Your task to perform on an android device: open app "WhatsApp Messenger" (install if not already installed) and go to login screen Image 0: 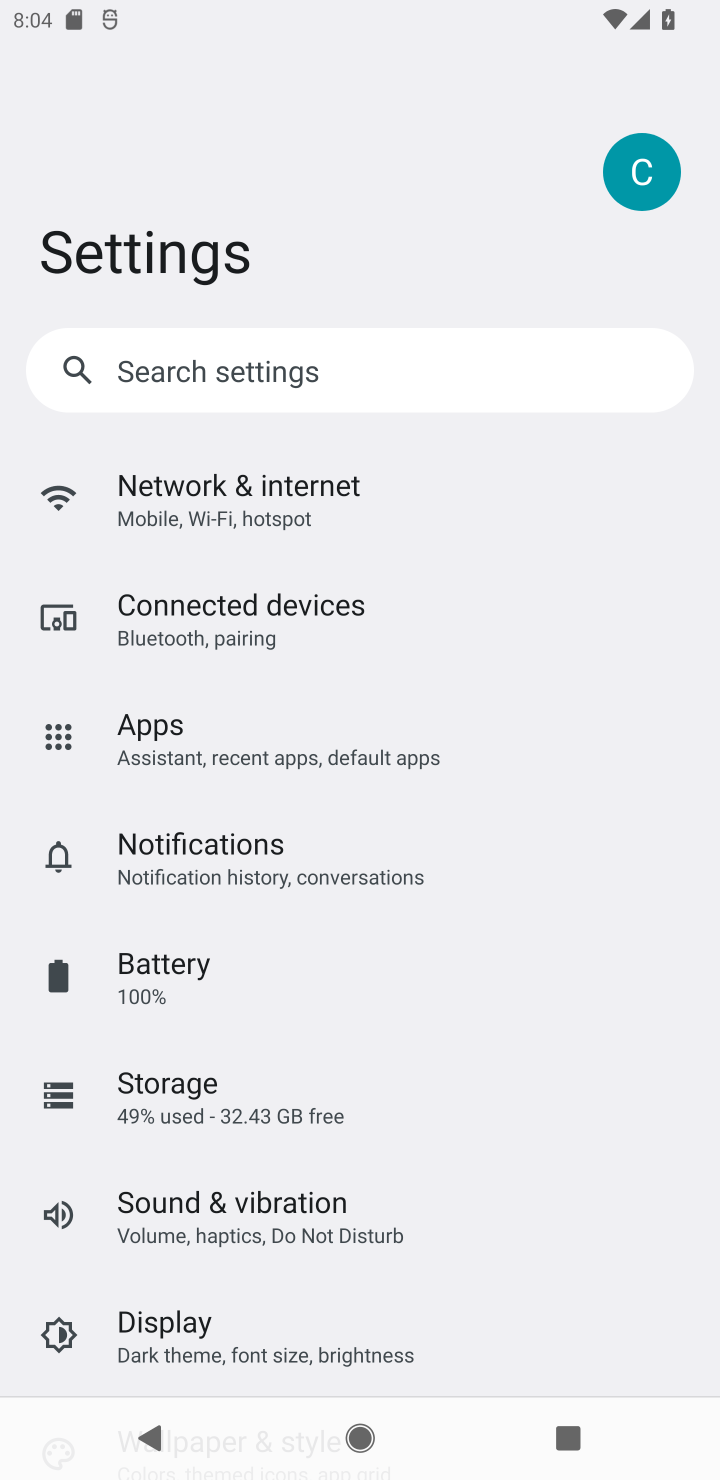
Step 0: press home button
Your task to perform on an android device: open app "WhatsApp Messenger" (install if not already installed) and go to login screen Image 1: 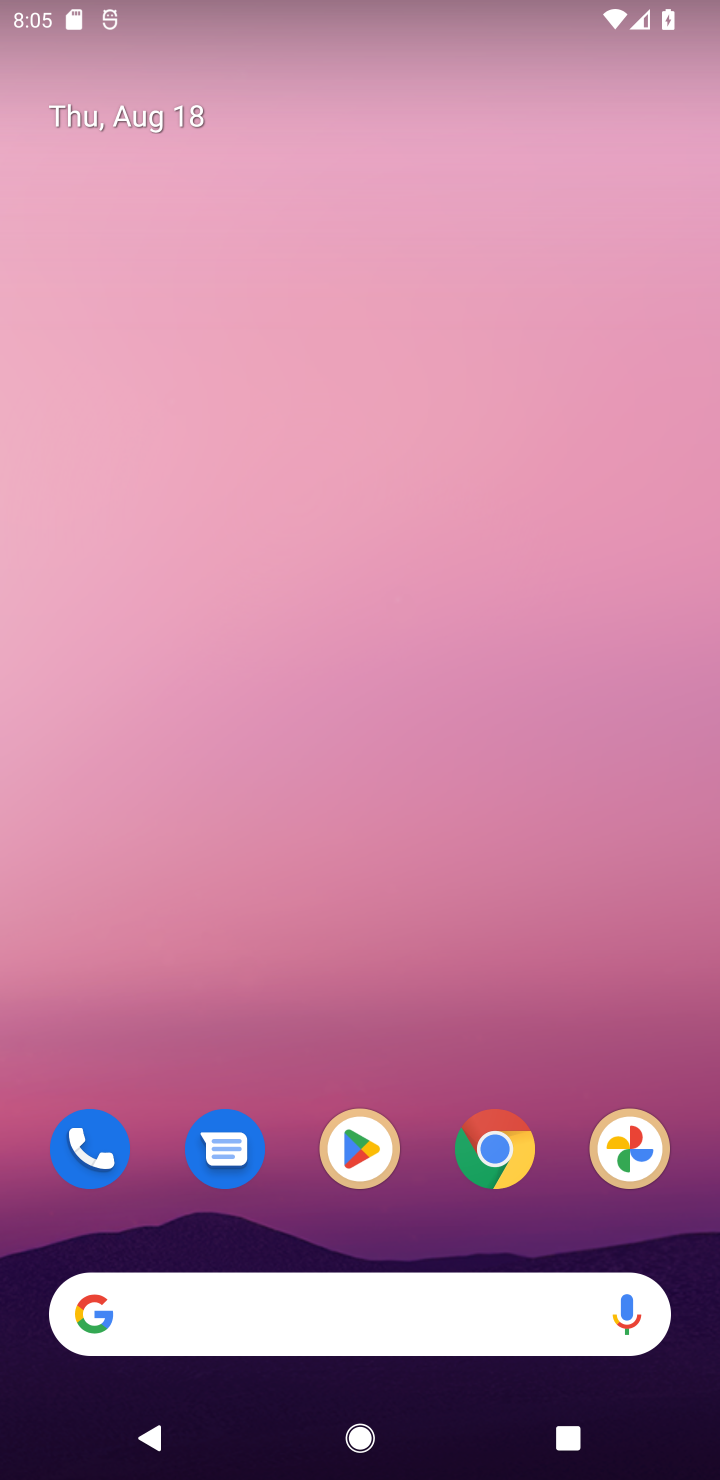
Step 1: drag from (555, 1234) to (288, 49)
Your task to perform on an android device: open app "WhatsApp Messenger" (install if not already installed) and go to login screen Image 2: 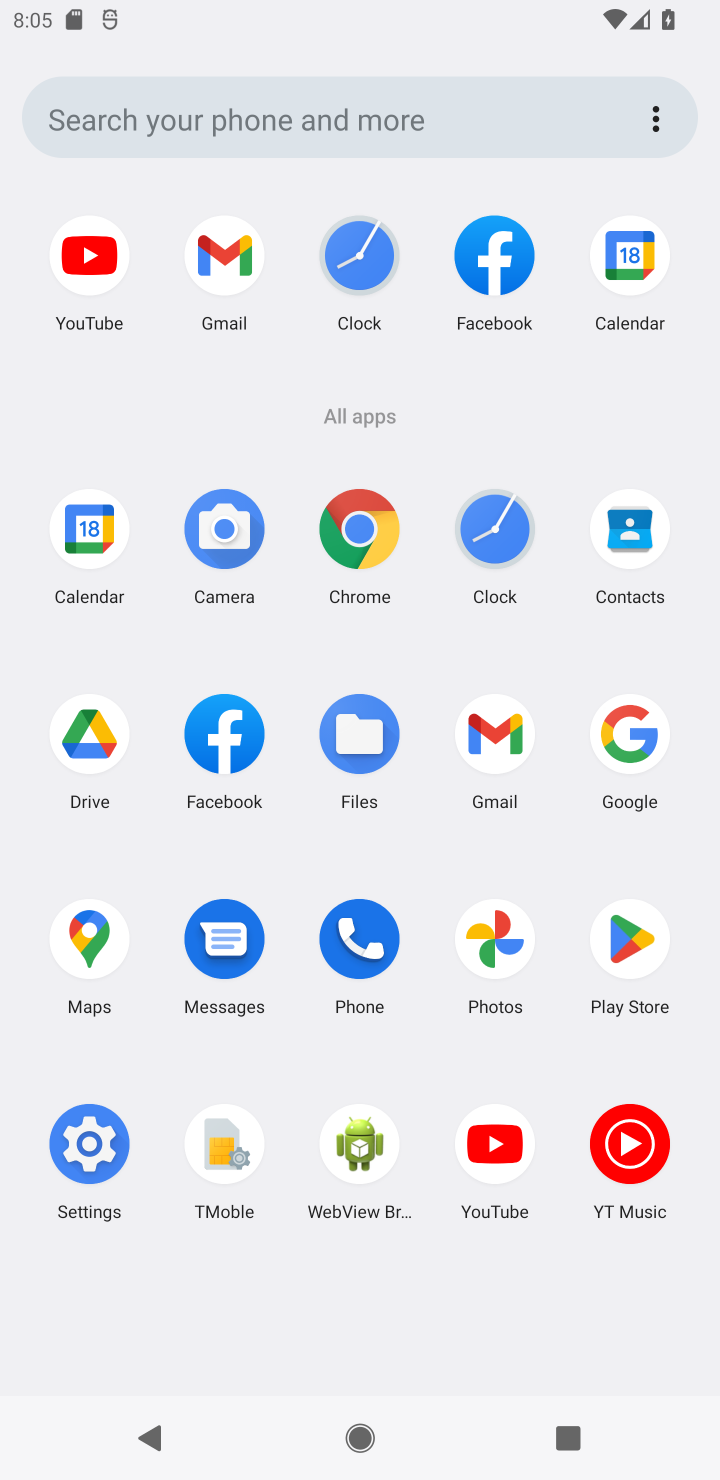
Step 2: click (618, 972)
Your task to perform on an android device: open app "WhatsApp Messenger" (install if not already installed) and go to login screen Image 3: 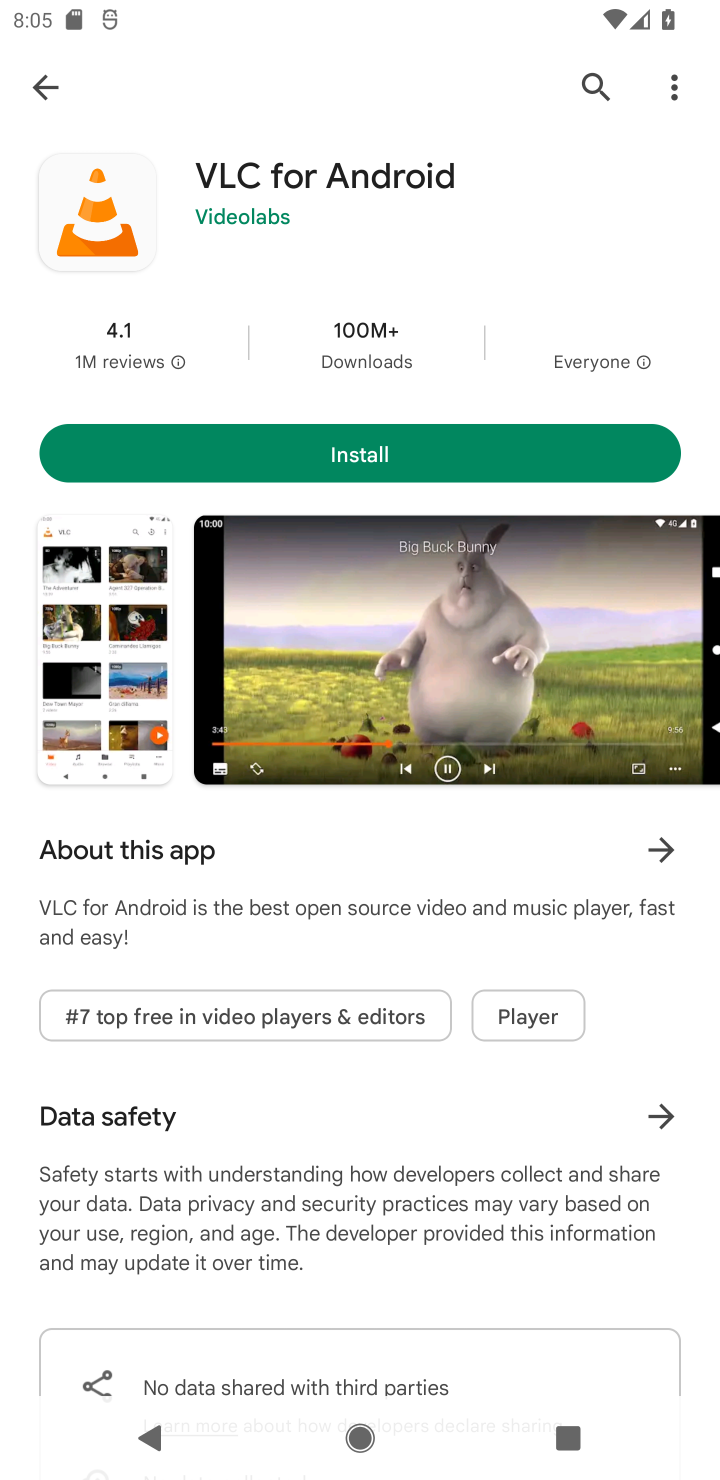
Step 3: press back button
Your task to perform on an android device: open app "WhatsApp Messenger" (install if not already installed) and go to login screen Image 4: 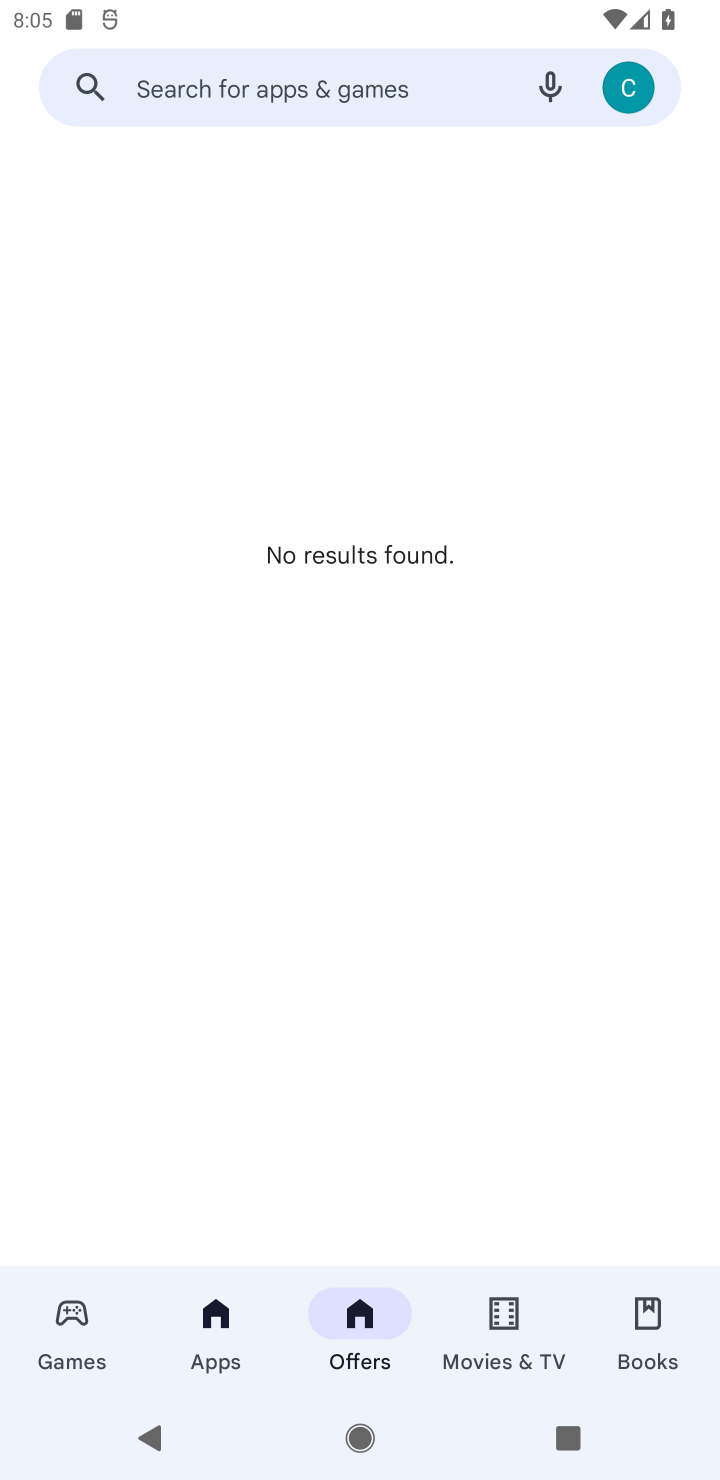
Step 4: click (212, 74)
Your task to perform on an android device: open app "WhatsApp Messenger" (install if not already installed) and go to login screen Image 5: 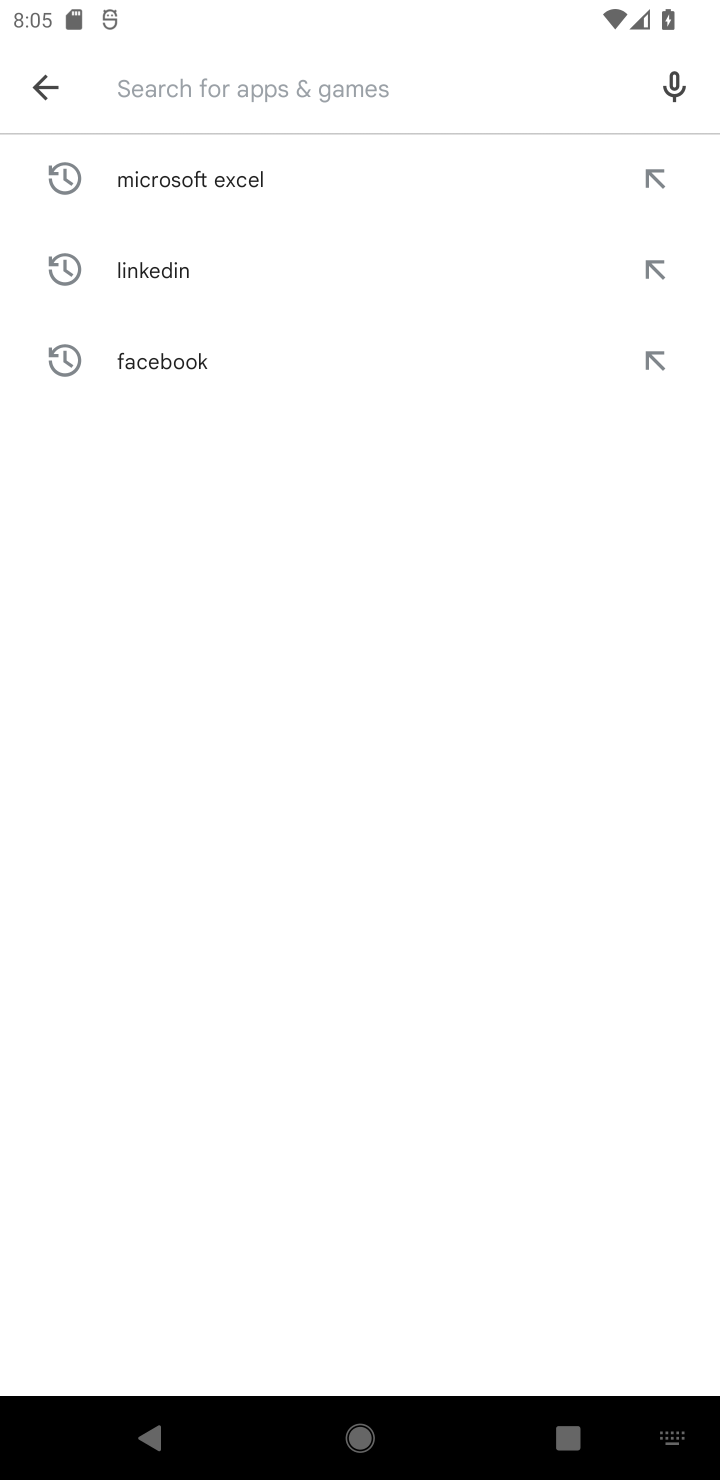
Step 5: type "WhatsApp Messenger"
Your task to perform on an android device: open app "WhatsApp Messenger" (install if not already installed) and go to login screen Image 6: 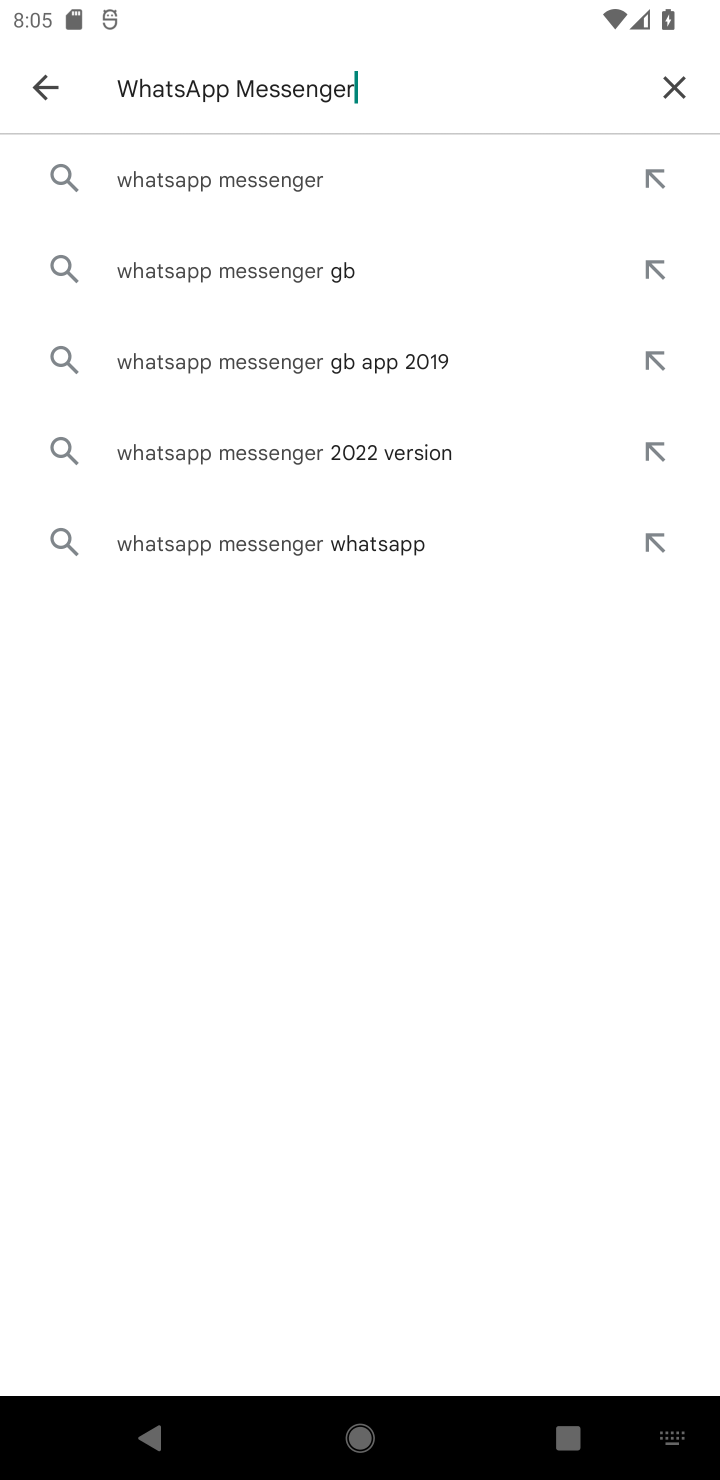
Step 6: click (215, 194)
Your task to perform on an android device: open app "WhatsApp Messenger" (install if not already installed) and go to login screen Image 7: 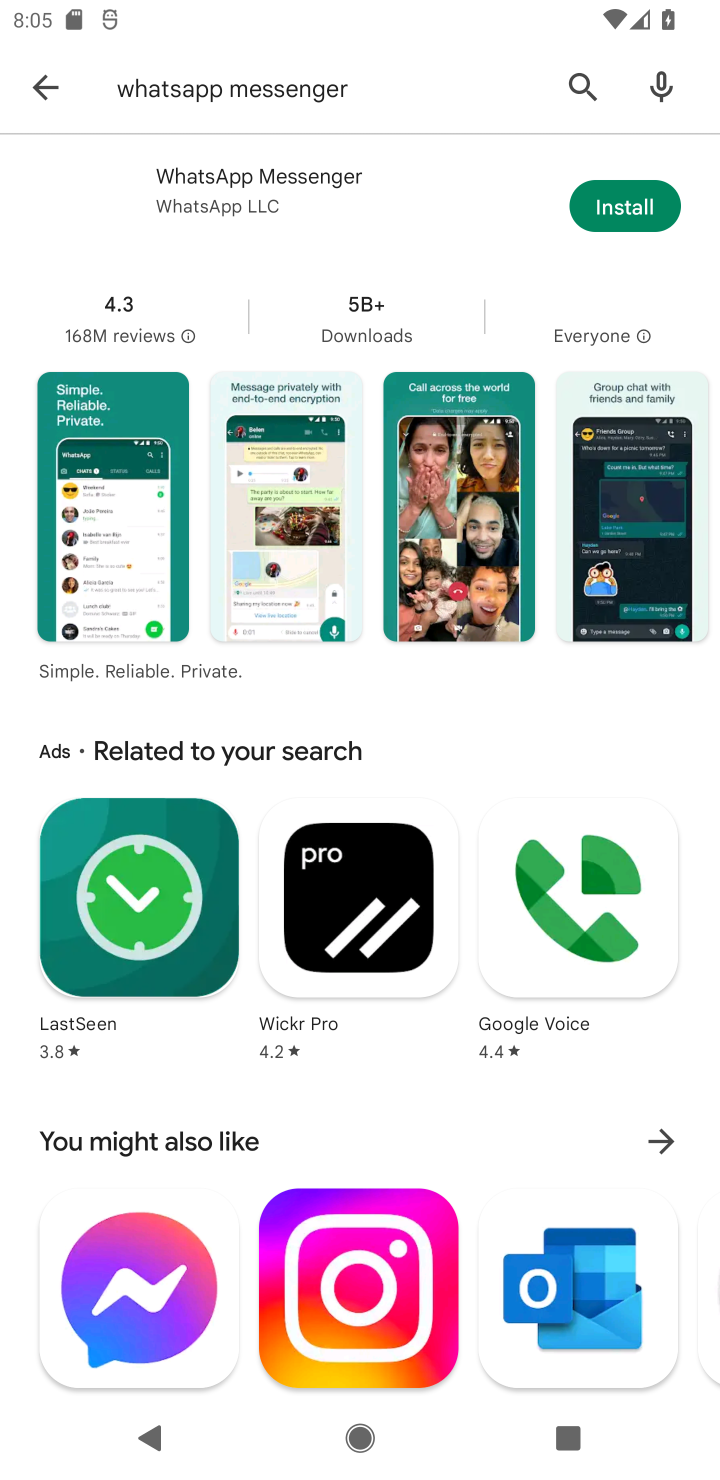
Step 7: task complete